Your task to perform on an android device: turn on priority inbox in the gmail app Image 0: 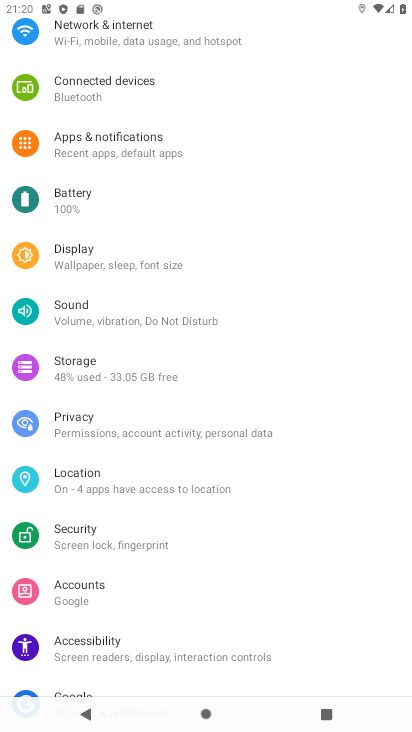
Step 0: press home button
Your task to perform on an android device: turn on priority inbox in the gmail app Image 1: 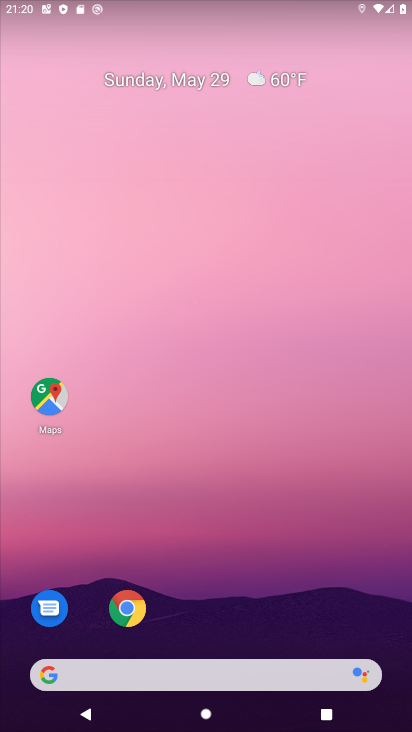
Step 1: drag from (389, 602) to (387, 230)
Your task to perform on an android device: turn on priority inbox in the gmail app Image 2: 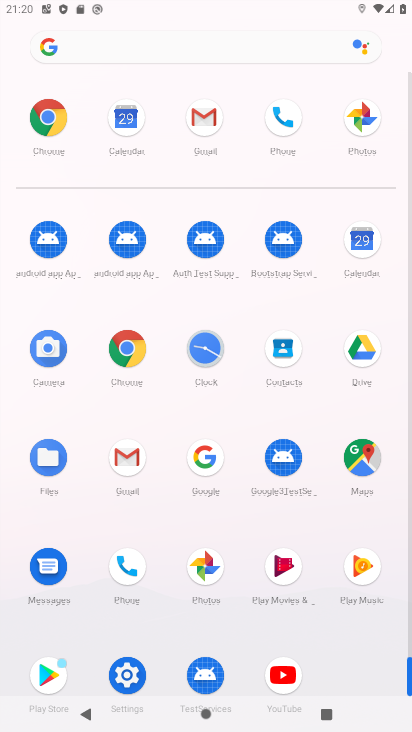
Step 2: click (134, 462)
Your task to perform on an android device: turn on priority inbox in the gmail app Image 3: 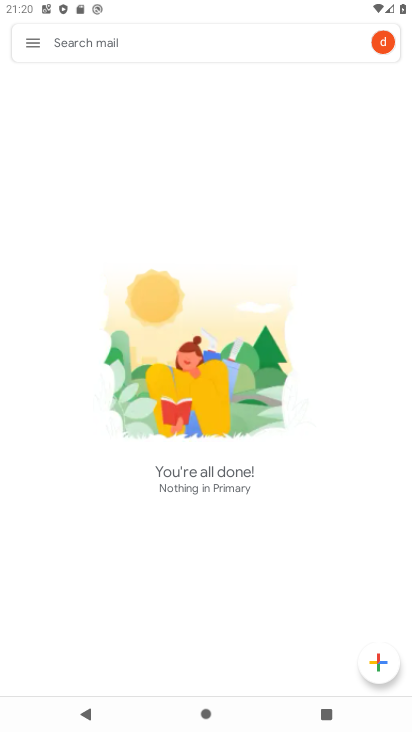
Step 3: click (35, 43)
Your task to perform on an android device: turn on priority inbox in the gmail app Image 4: 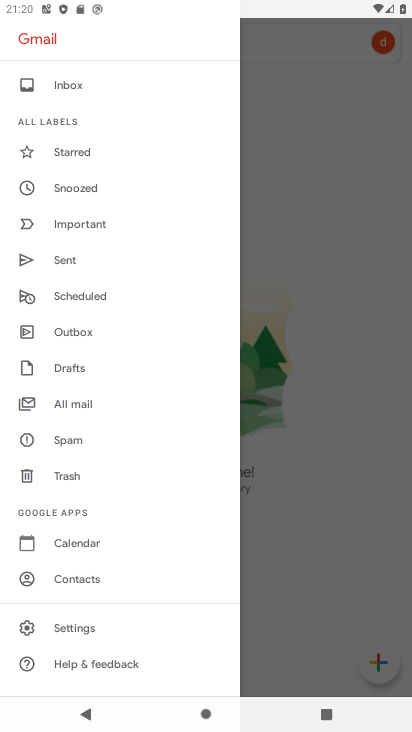
Step 4: click (95, 626)
Your task to perform on an android device: turn on priority inbox in the gmail app Image 5: 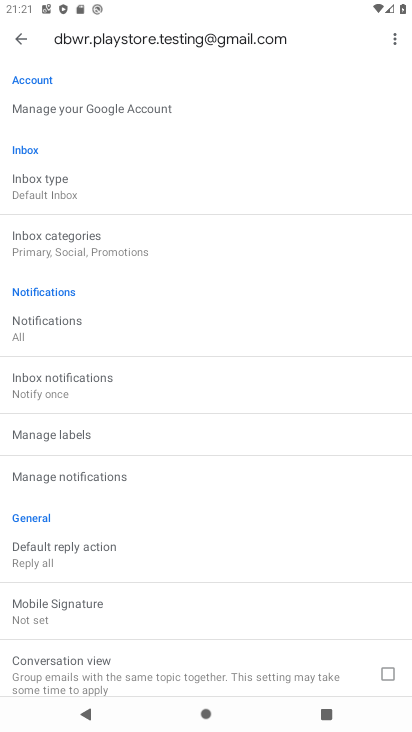
Step 5: click (89, 190)
Your task to perform on an android device: turn on priority inbox in the gmail app Image 6: 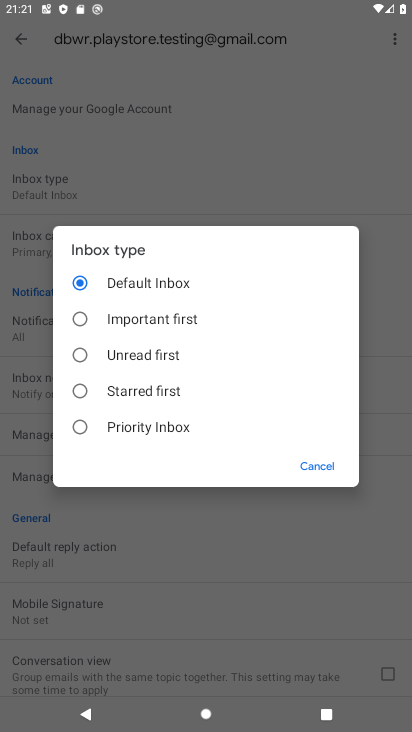
Step 6: click (133, 422)
Your task to perform on an android device: turn on priority inbox in the gmail app Image 7: 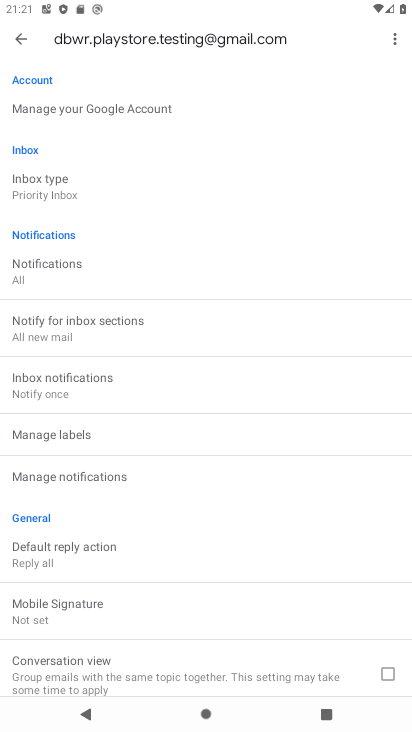
Step 7: task complete